Your task to perform on an android device: turn on notifications settings in the gmail app Image 0: 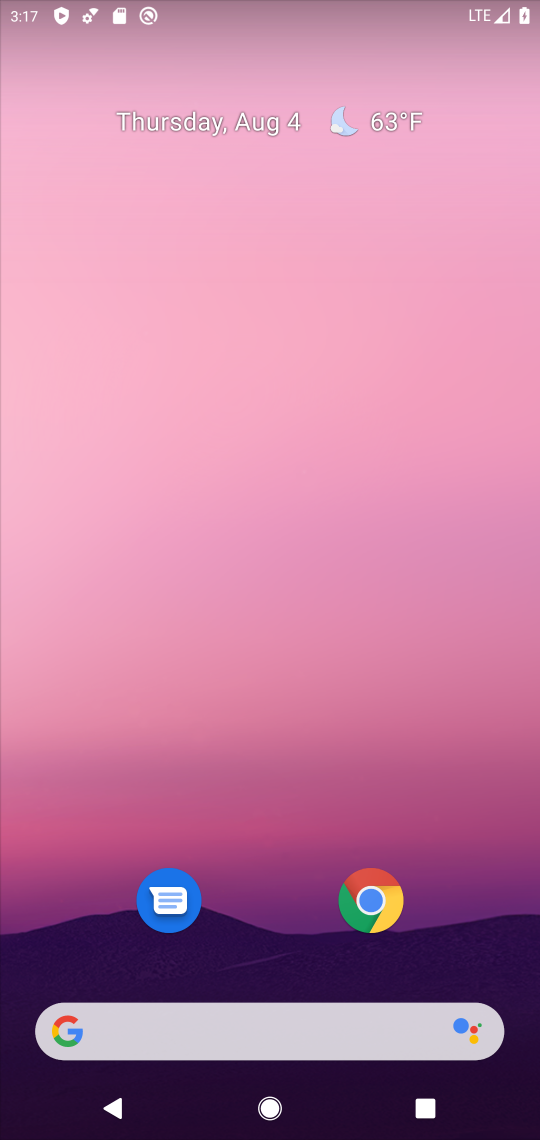
Step 0: drag from (530, 947) to (526, 530)
Your task to perform on an android device: turn on notifications settings in the gmail app Image 1: 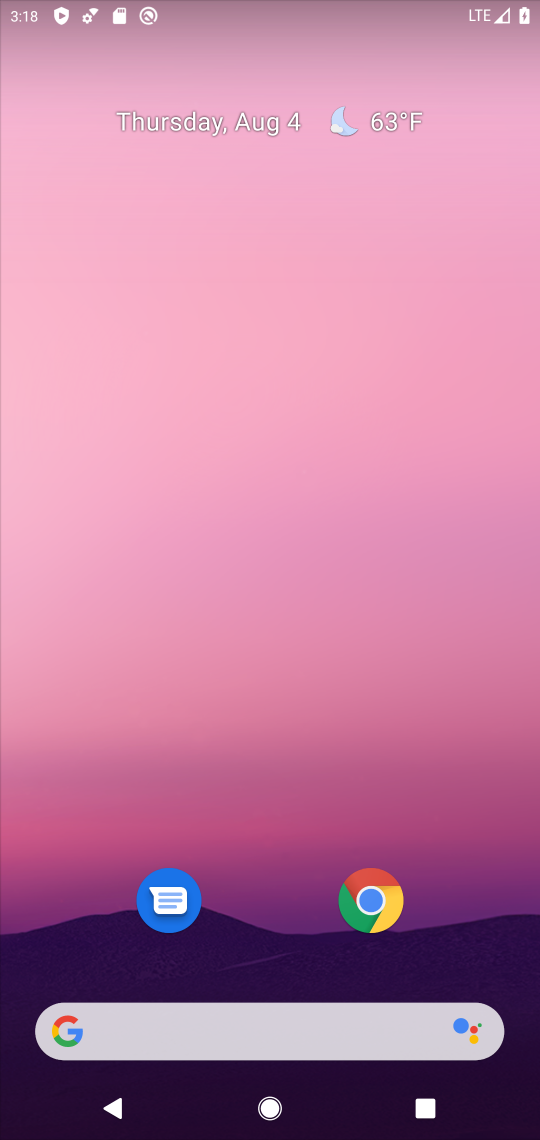
Step 1: drag from (486, 985) to (318, 13)
Your task to perform on an android device: turn on notifications settings in the gmail app Image 2: 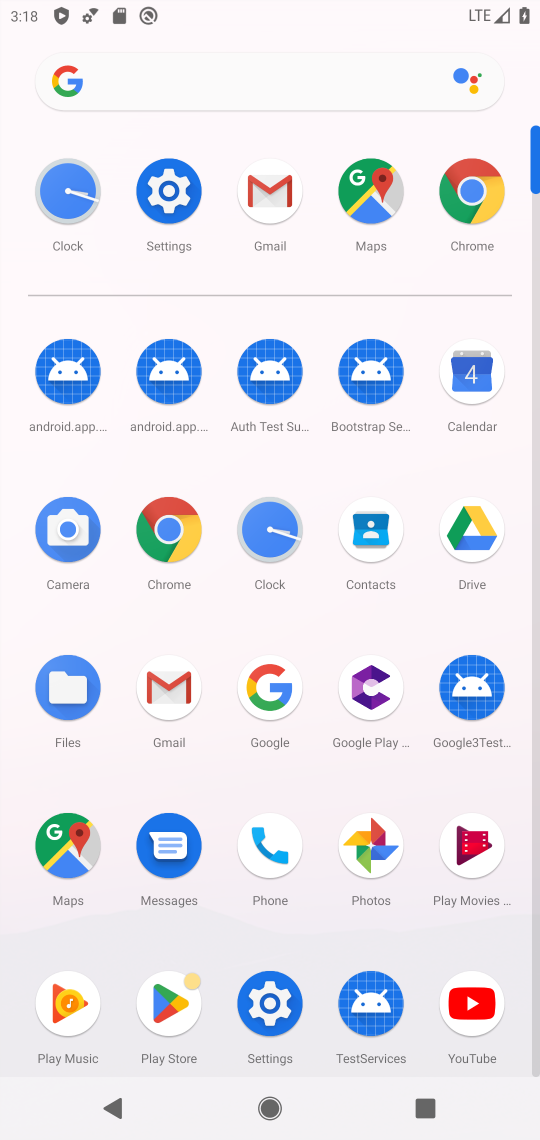
Step 2: click (286, 210)
Your task to perform on an android device: turn on notifications settings in the gmail app Image 3: 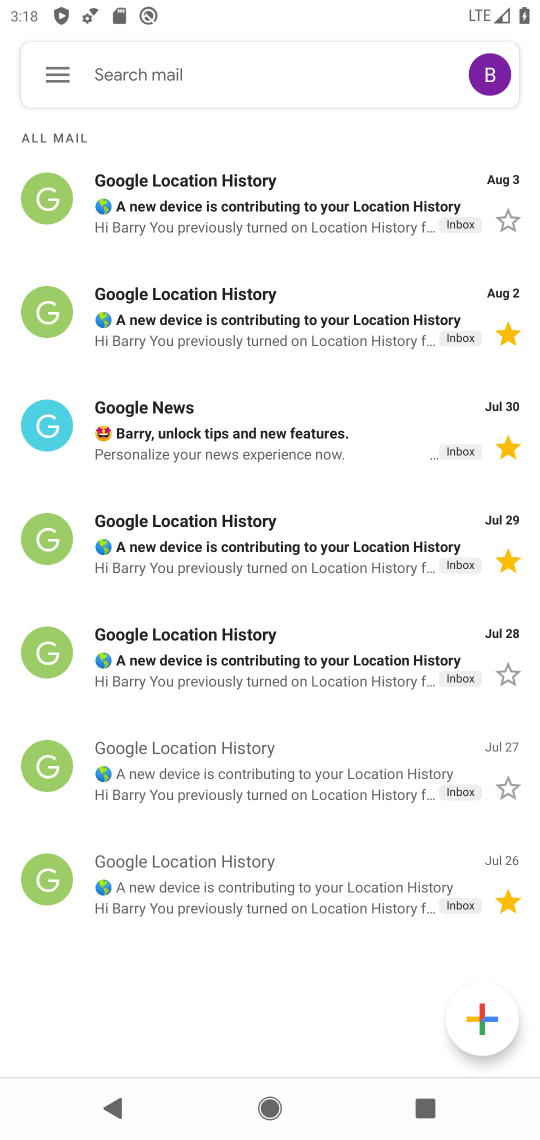
Step 3: click (59, 88)
Your task to perform on an android device: turn on notifications settings in the gmail app Image 4: 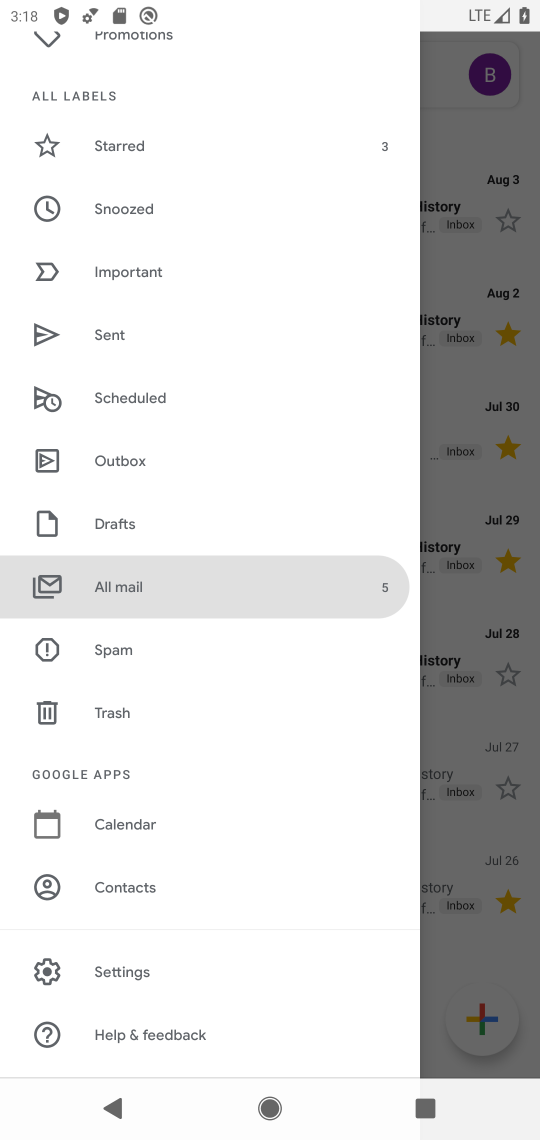
Step 4: click (184, 980)
Your task to perform on an android device: turn on notifications settings in the gmail app Image 5: 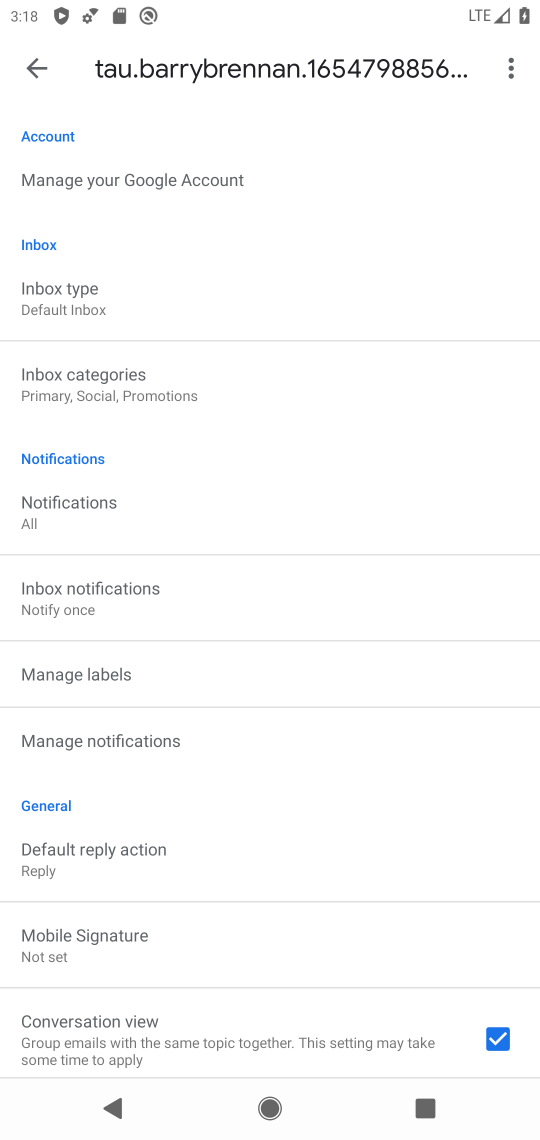
Step 5: click (213, 737)
Your task to perform on an android device: turn on notifications settings in the gmail app Image 6: 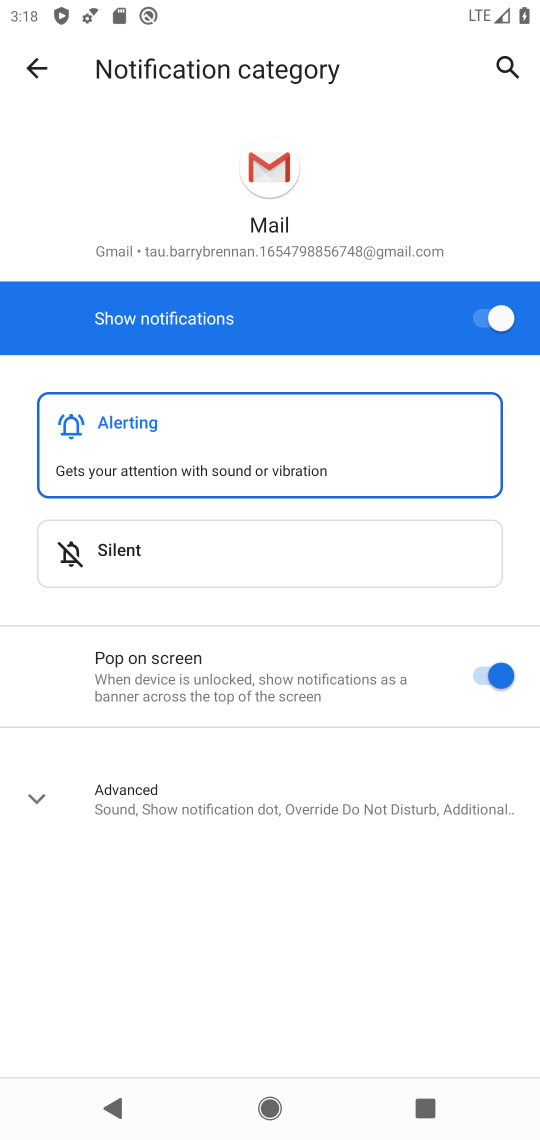
Step 6: click (424, 828)
Your task to perform on an android device: turn on notifications settings in the gmail app Image 7: 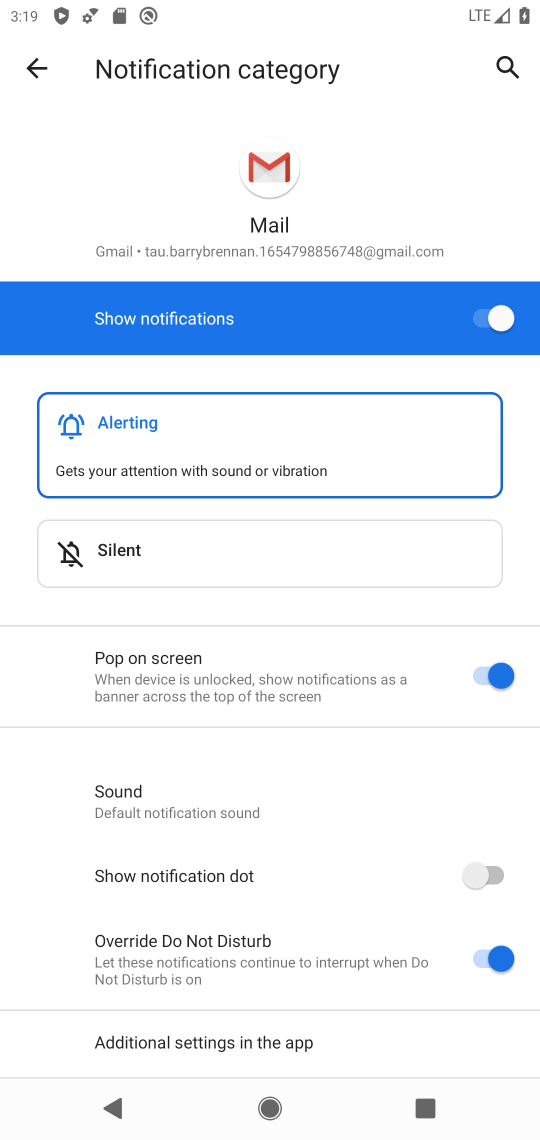
Step 7: click (507, 883)
Your task to perform on an android device: turn on notifications settings in the gmail app Image 8: 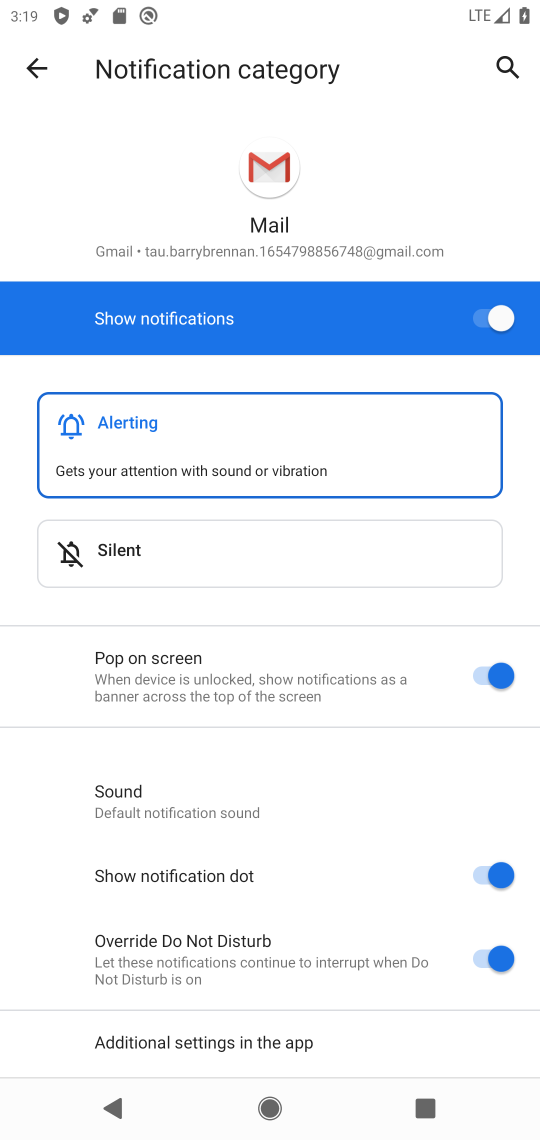
Step 8: task complete